Your task to perform on an android device: find snoozed emails in the gmail app Image 0: 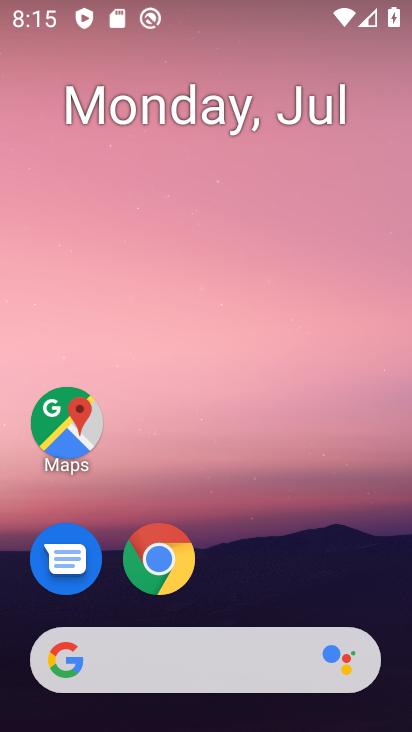
Step 0: drag from (314, 588) to (245, 107)
Your task to perform on an android device: find snoozed emails in the gmail app Image 1: 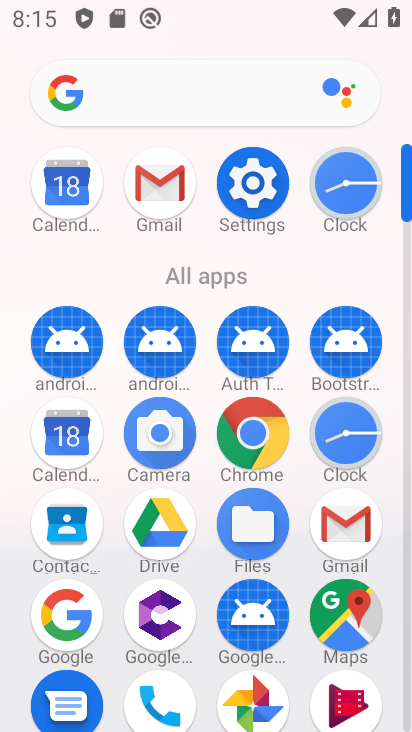
Step 1: click (170, 185)
Your task to perform on an android device: find snoozed emails in the gmail app Image 2: 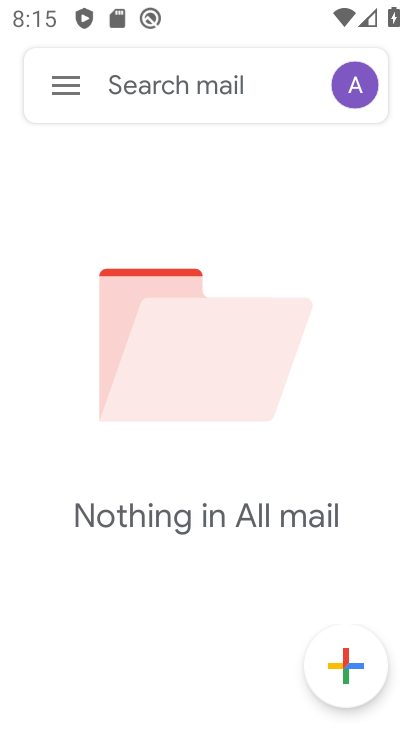
Step 2: click (76, 106)
Your task to perform on an android device: find snoozed emails in the gmail app Image 3: 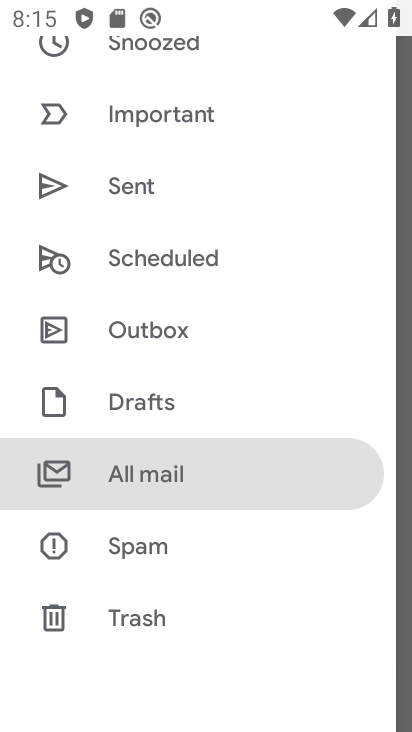
Step 3: click (284, 49)
Your task to perform on an android device: find snoozed emails in the gmail app Image 4: 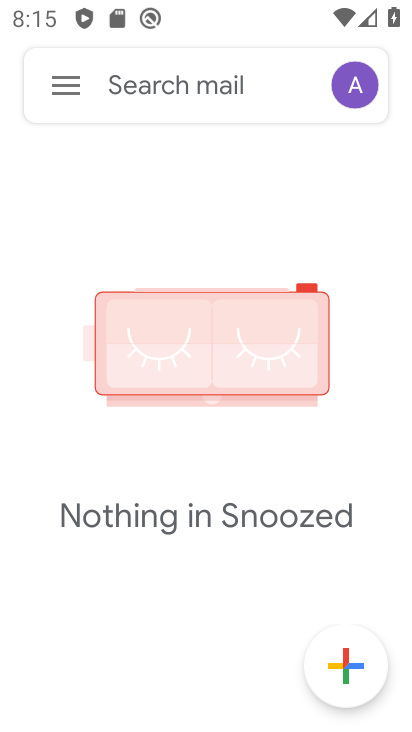
Step 4: task complete